Your task to perform on an android device: Go to Yahoo.com Image 0: 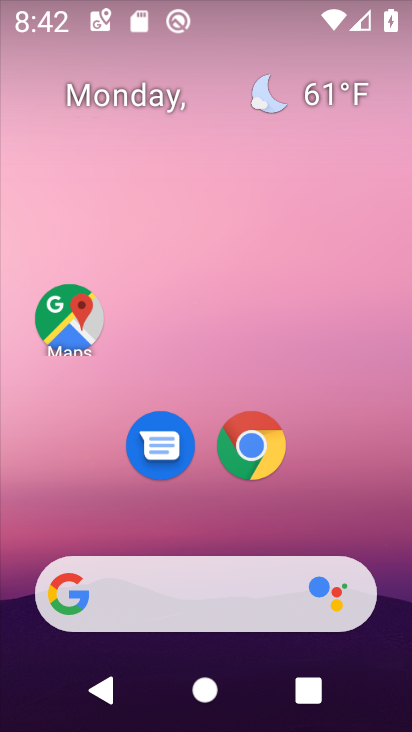
Step 0: press home button
Your task to perform on an android device: Go to Yahoo.com Image 1: 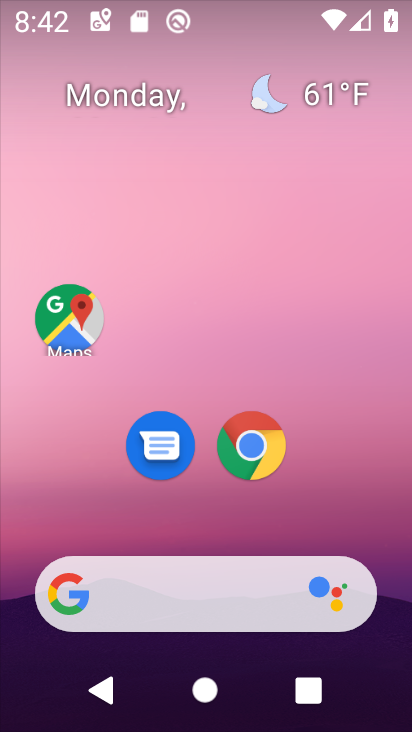
Step 1: click (252, 443)
Your task to perform on an android device: Go to Yahoo.com Image 2: 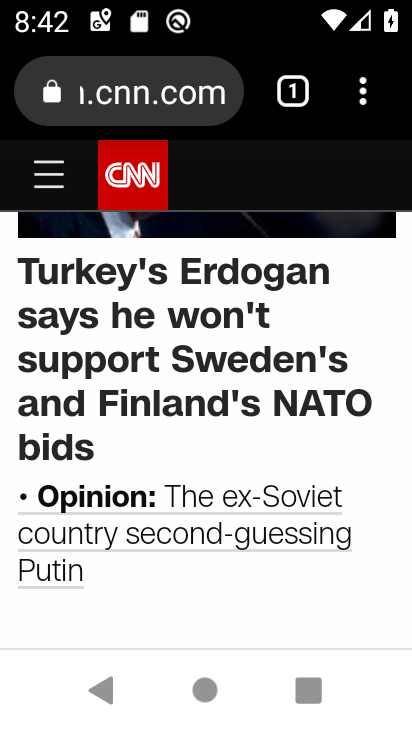
Step 2: click (295, 89)
Your task to perform on an android device: Go to Yahoo.com Image 3: 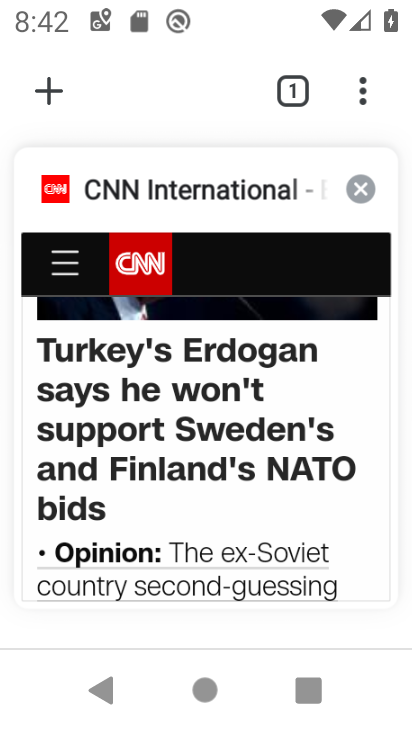
Step 3: click (358, 188)
Your task to perform on an android device: Go to Yahoo.com Image 4: 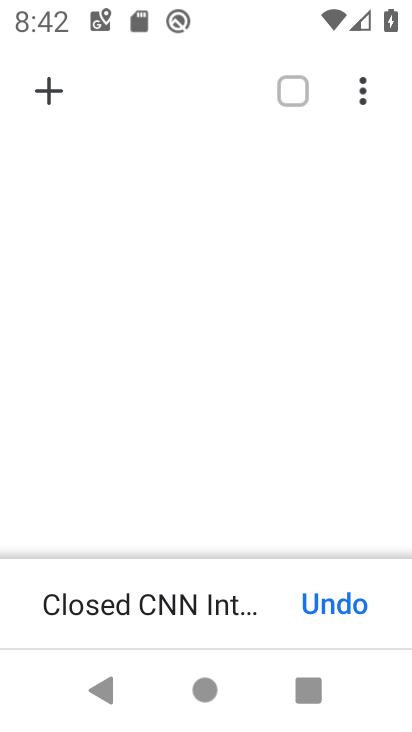
Step 4: click (53, 93)
Your task to perform on an android device: Go to Yahoo.com Image 5: 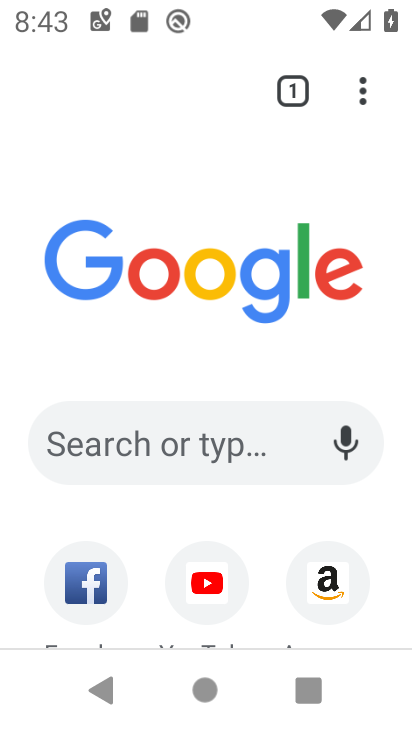
Step 5: drag from (135, 535) to (147, 208)
Your task to perform on an android device: Go to Yahoo.com Image 6: 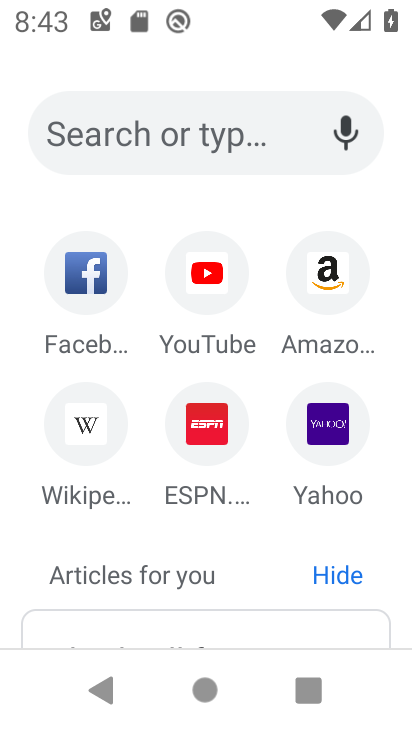
Step 6: click (325, 420)
Your task to perform on an android device: Go to Yahoo.com Image 7: 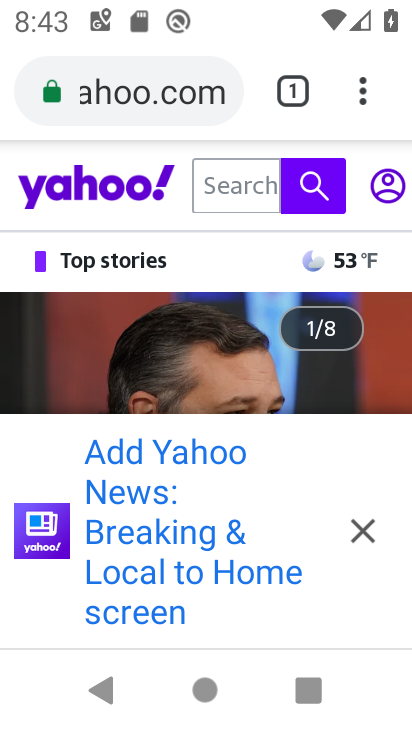
Step 7: click (360, 528)
Your task to perform on an android device: Go to Yahoo.com Image 8: 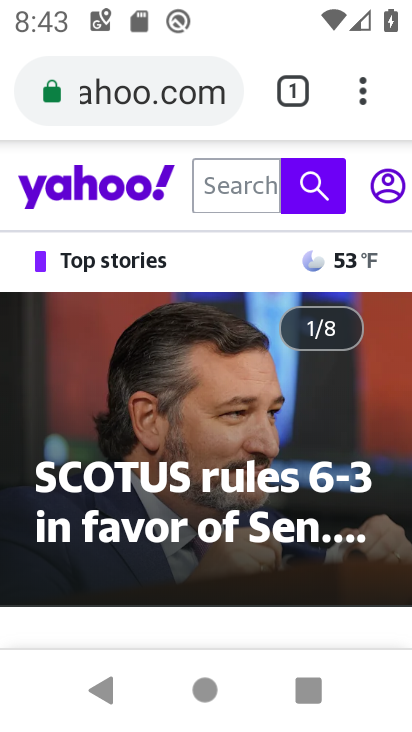
Step 8: task complete